Your task to perform on an android device: Open Google Maps and go to "Timeline" Image 0: 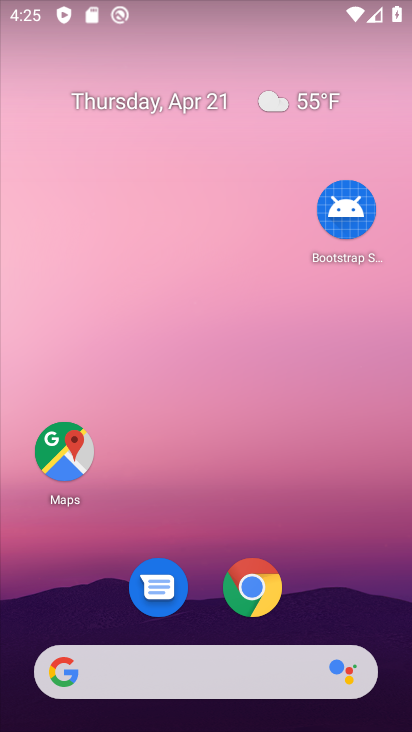
Step 0: drag from (327, 588) to (358, 26)
Your task to perform on an android device: Open Google Maps and go to "Timeline" Image 1: 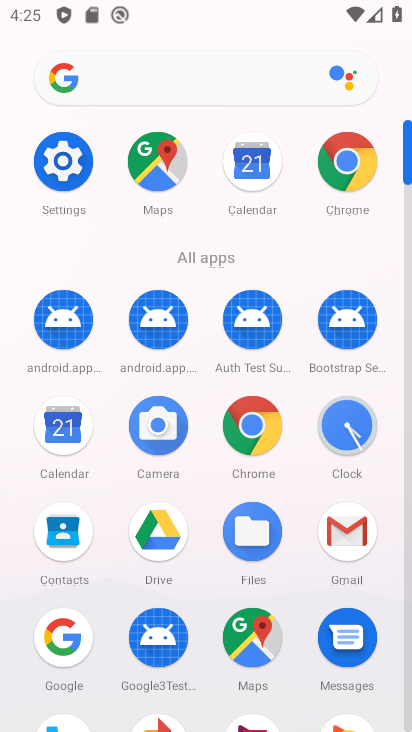
Step 1: click (260, 625)
Your task to perform on an android device: Open Google Maps and go to "Timeline" Image 2: 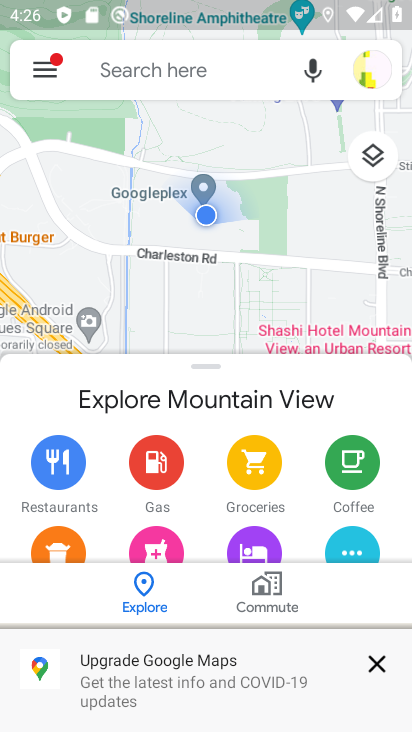
Step 2: click (45, 74)
Your task to perform on an android device: Open Google Maps and go to "Timeline" Image 3: 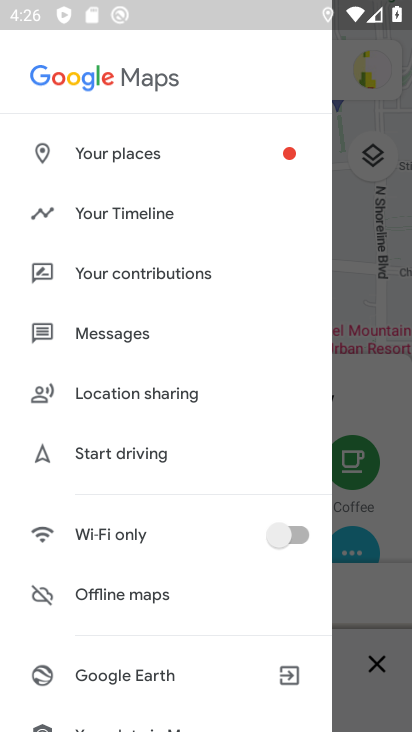
Step 3: click (101, 207)
Your task to perform on an android device: Open Google Maps and go to "Timeline" Image 4: 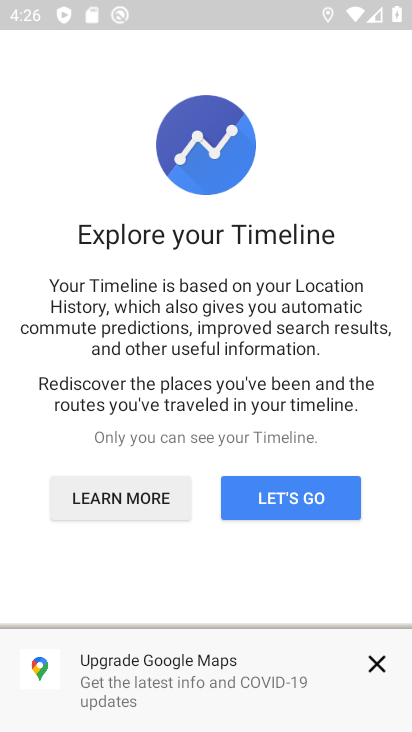
Step 4: click (285, 491)
Your task to perform on an android device: Open Google Maps and go to "Timeline" Image 5: 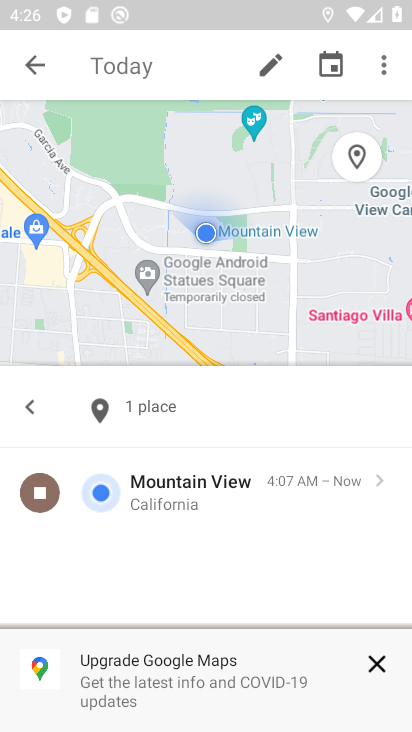
Step 5: task complete